Your task to perform on an android device: Open Google Maps and go to "Timeline" Image 0: 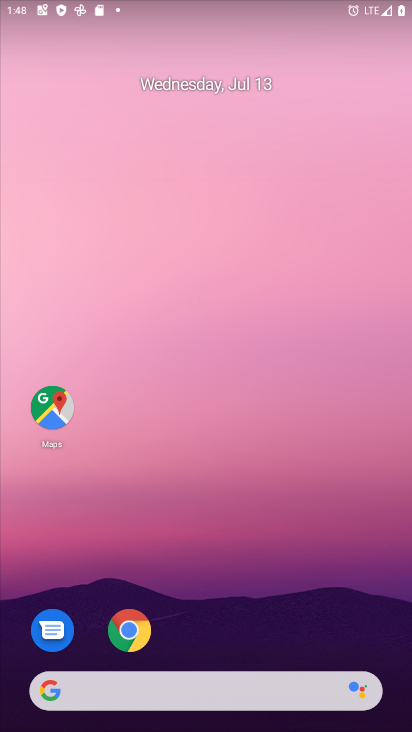
Step 0: drag from (372, 673) to (273, 27)
Your task to perform on an android device: Open Google Maps and go to "Timeline" Image 1: 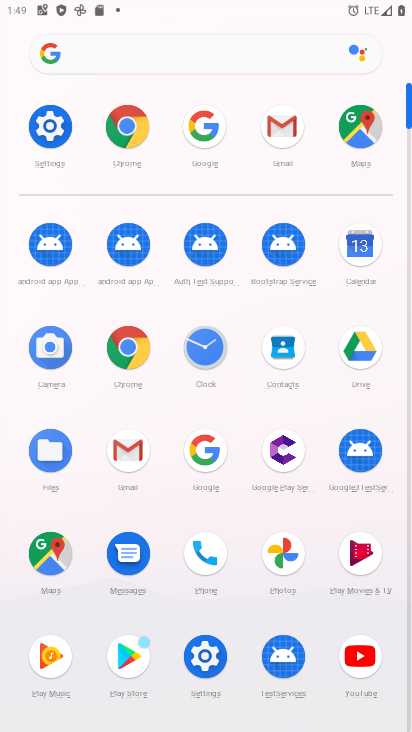
Step 1: click (38, 559)
Your task to perform on an android device: Open Google Maps and go to "Timeline" Image 2: 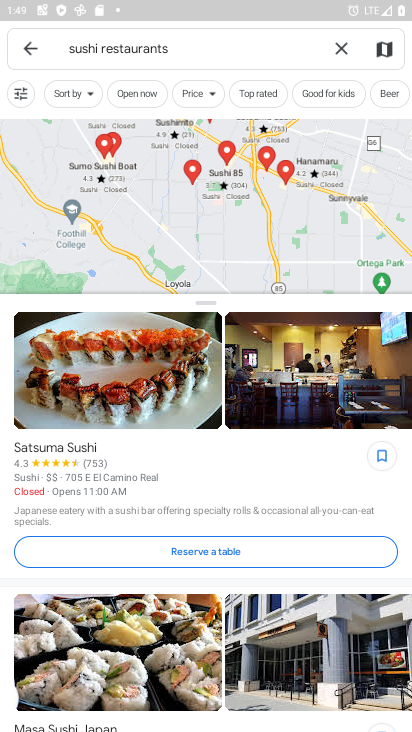
Step 2: click (333, 55)
Your task to perform on an android device: Open Google Maps and go to "Timeline" Image 3: 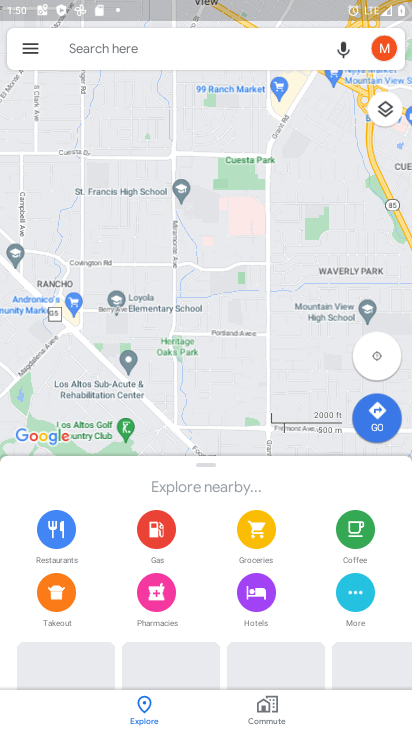
Step 3: click (24, 44)
Your task to perform on an android device: Open Google Maps and go to "Timeline" Image 4: 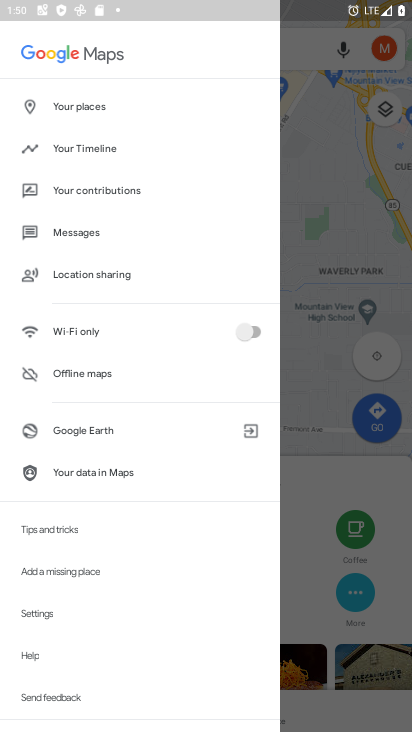
Step 4: click (62, 149)
Your task to perform on an android device: Open Google Maps and go to "Timeline" Image 5: 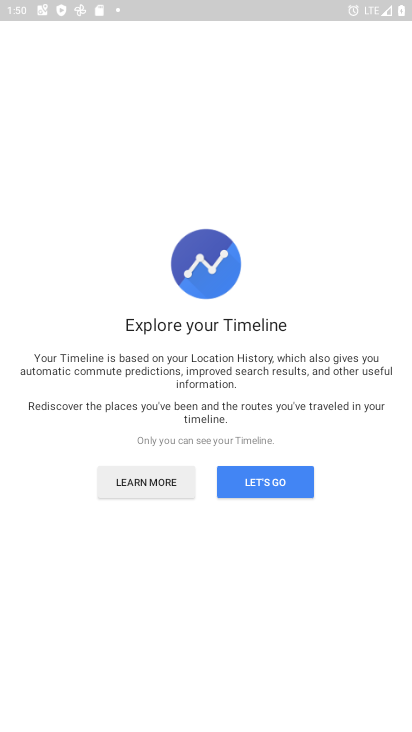
Step 5: task complete